Your task to perform on an android device: toggle sleep mode Image 0: 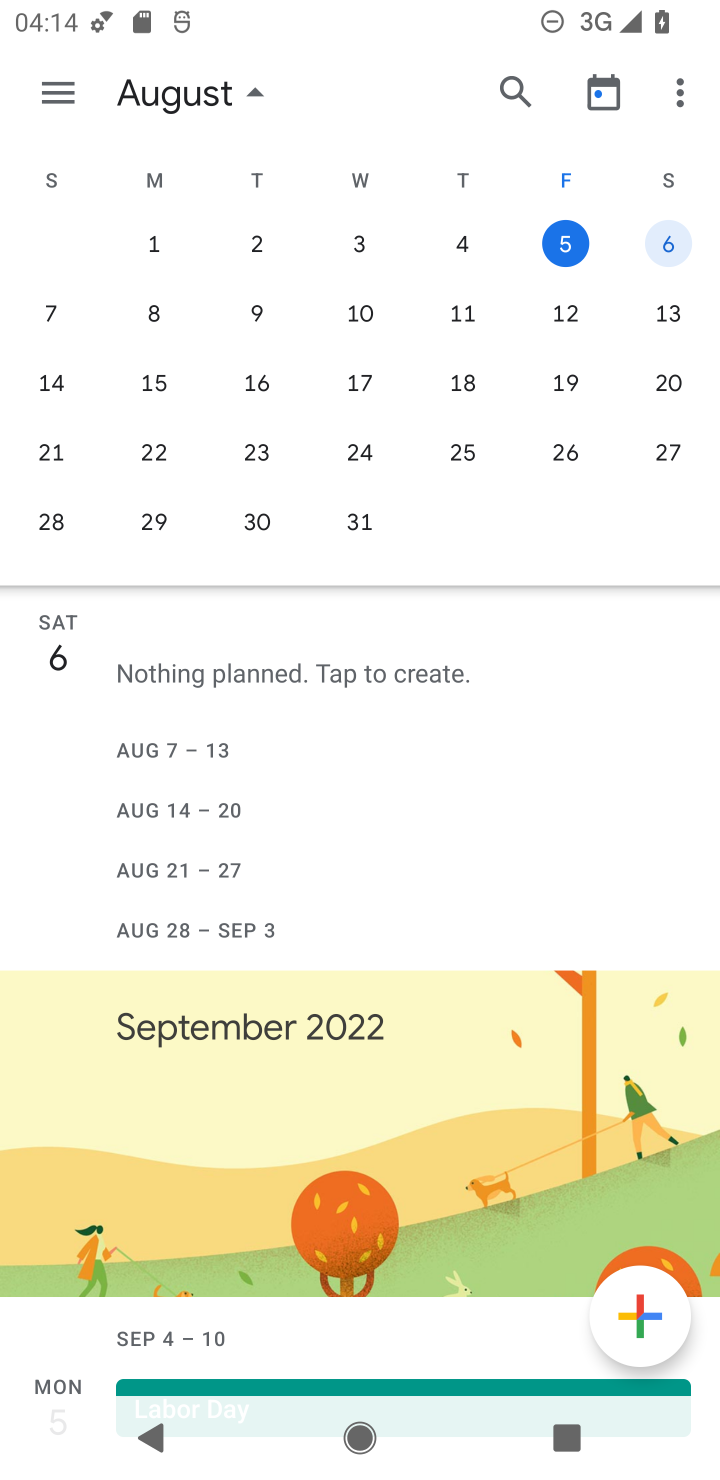
Step 0: press home button
Your task to perform on an android device: toggle sleep mode Image 1: 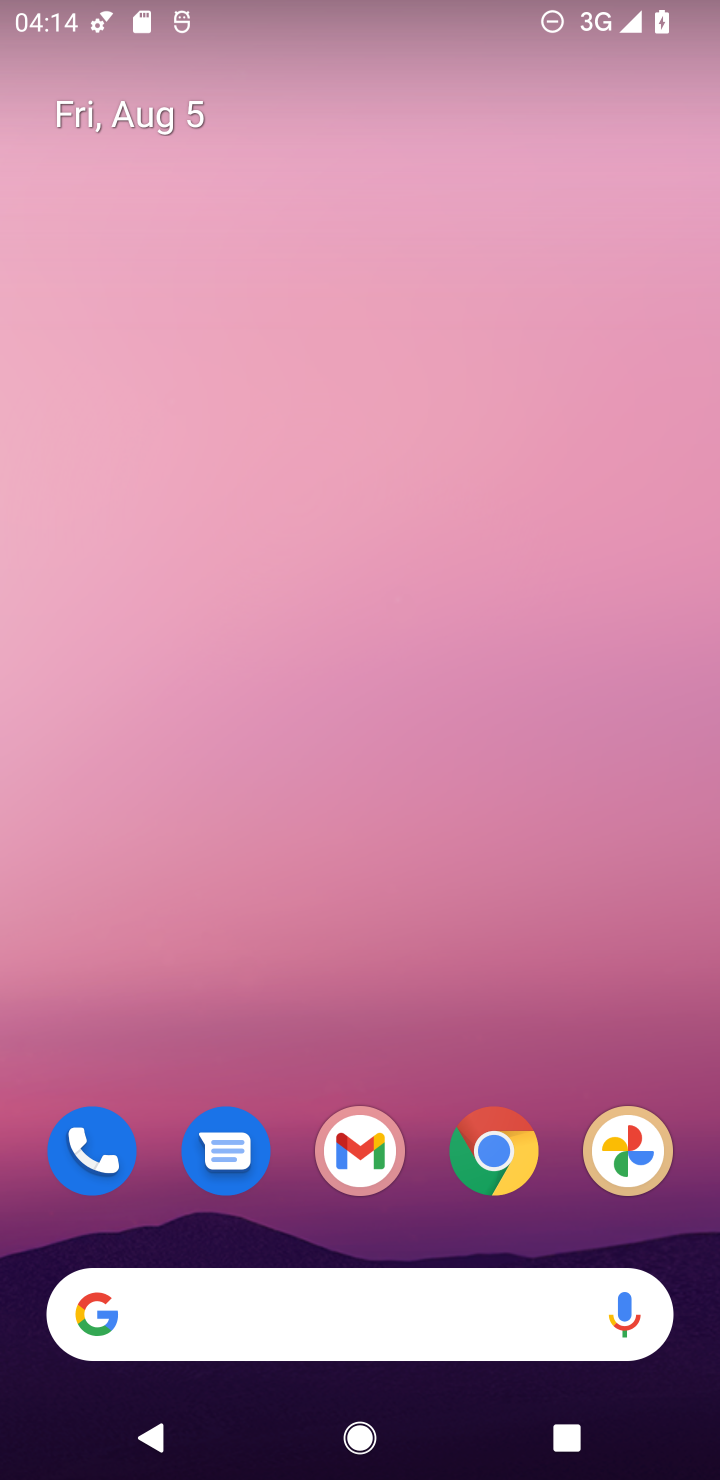
Step 1: drag from (281, 1213) to (369, 51)
Your task to perform on an android device: toggle sleep mode Image 2: 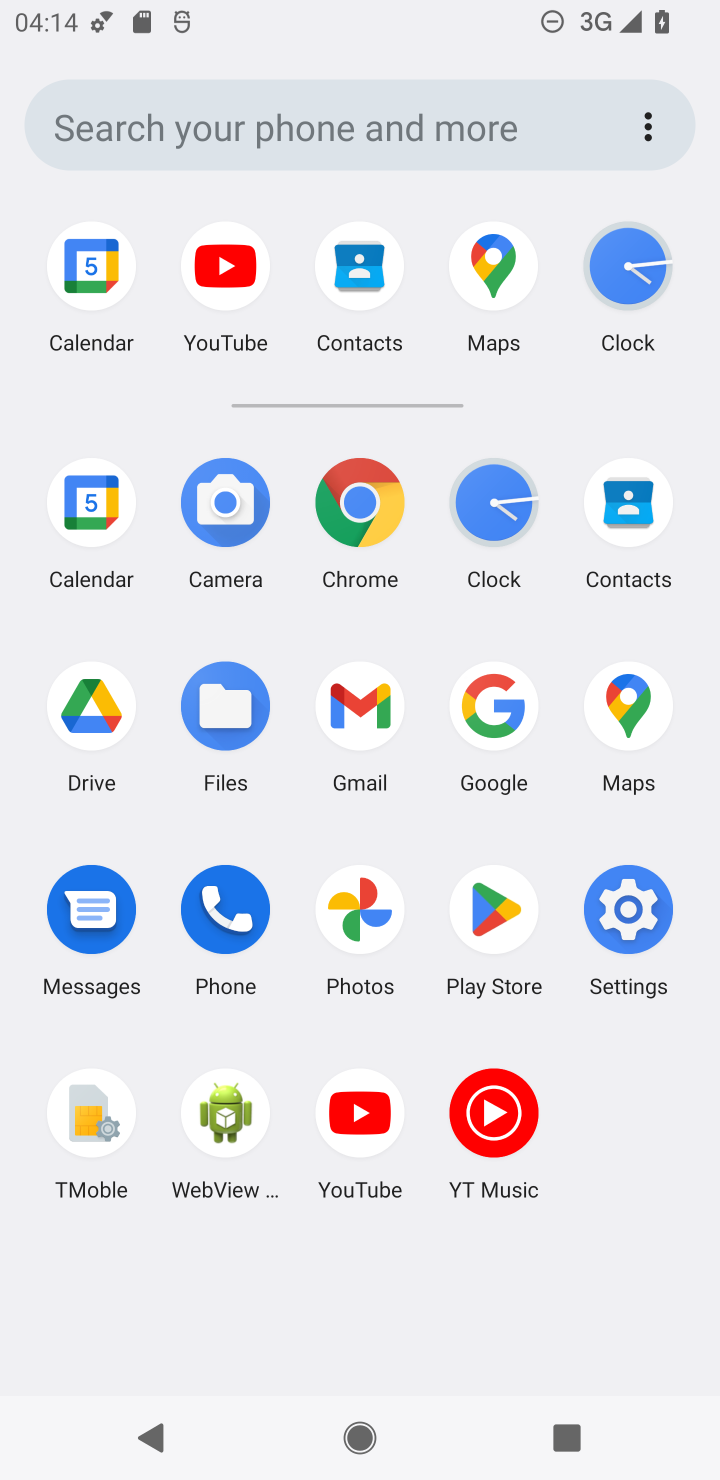
Step 2: click (633, 919)
Your task to perform on an android device: toggle sleep mode Image 3: 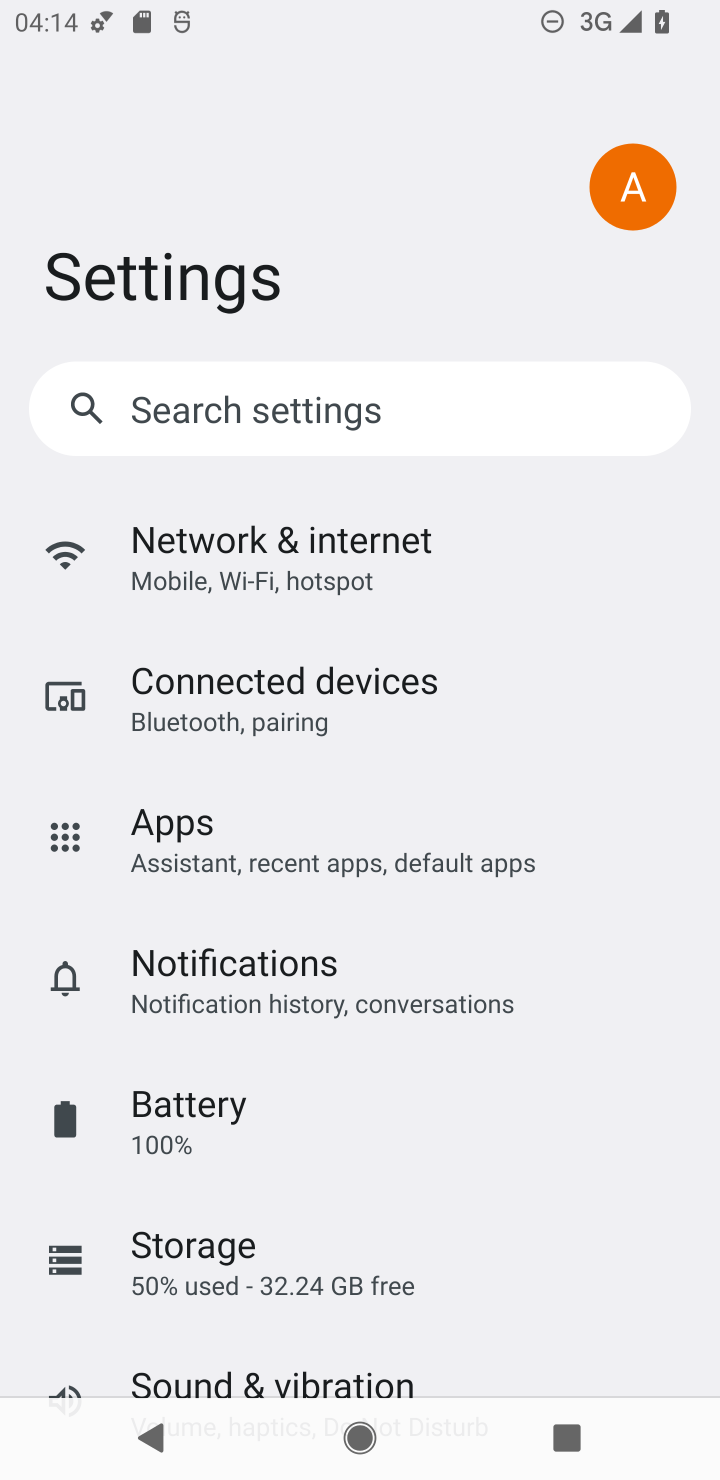
Step 3: drag from (357, 1315) to (265, 770)
Your task to perform on an android device: toggle sleep mode Image 4: 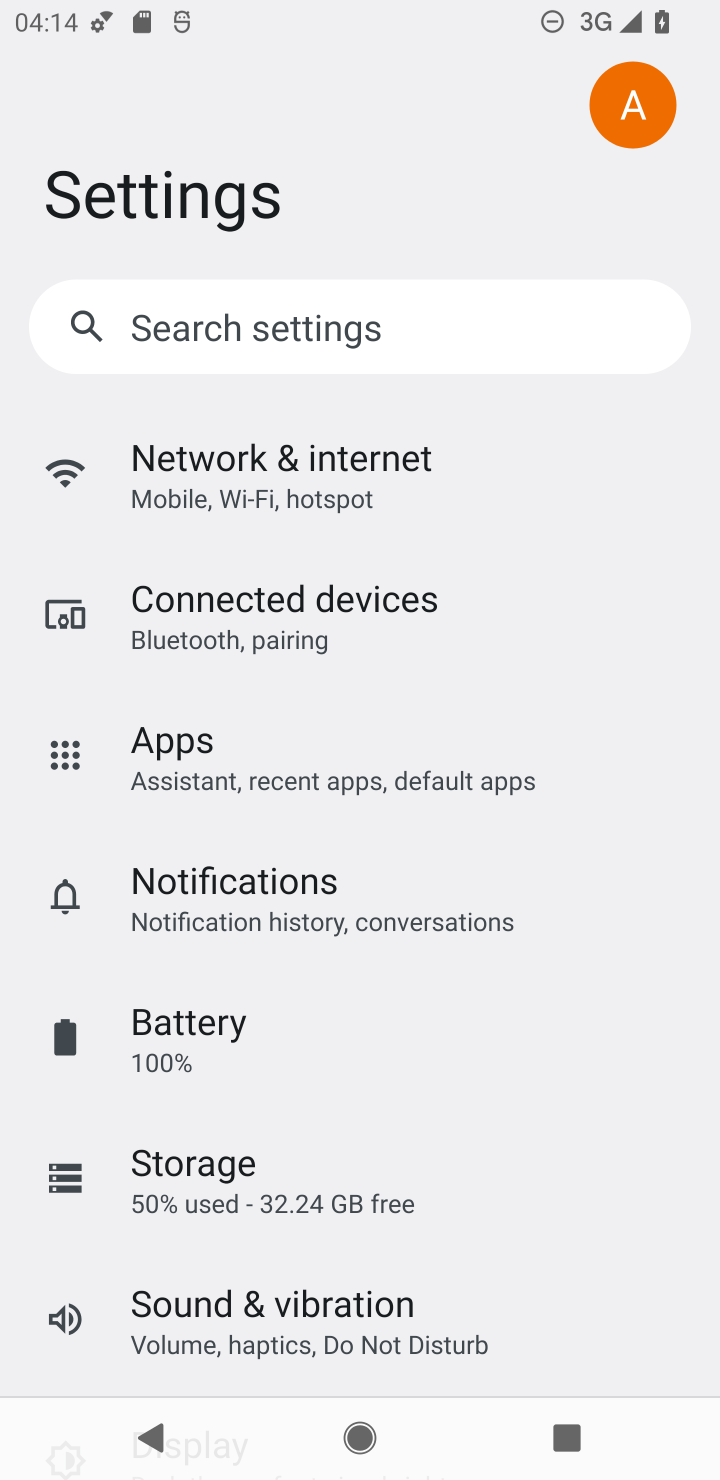
Step 4: drag from (415, 1203) to (420, 540)
Your task to perform on an android device: toggle sleep mode Image 5: 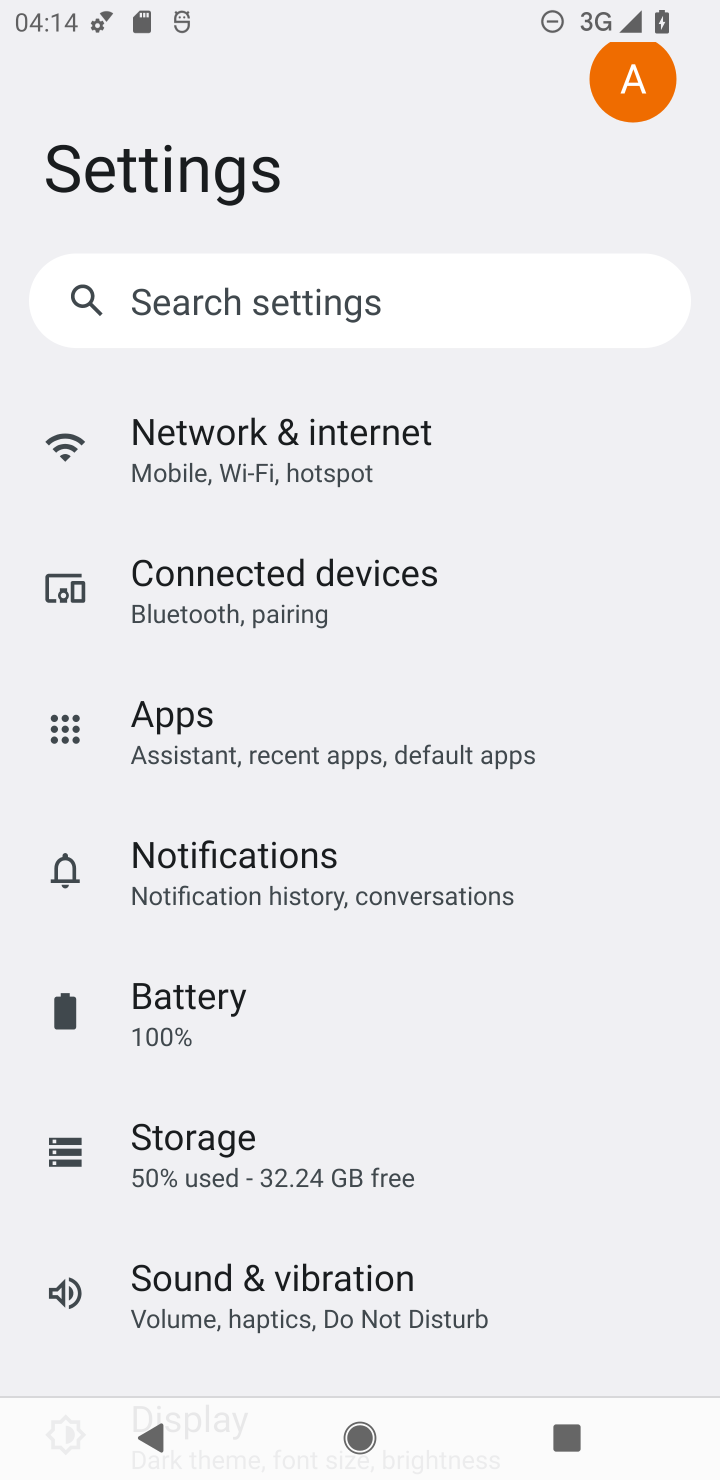
Step 5: drag from (336, 1239) to (252, 610)
Your task to perform on an android device: toggle sleep mode Image 6: 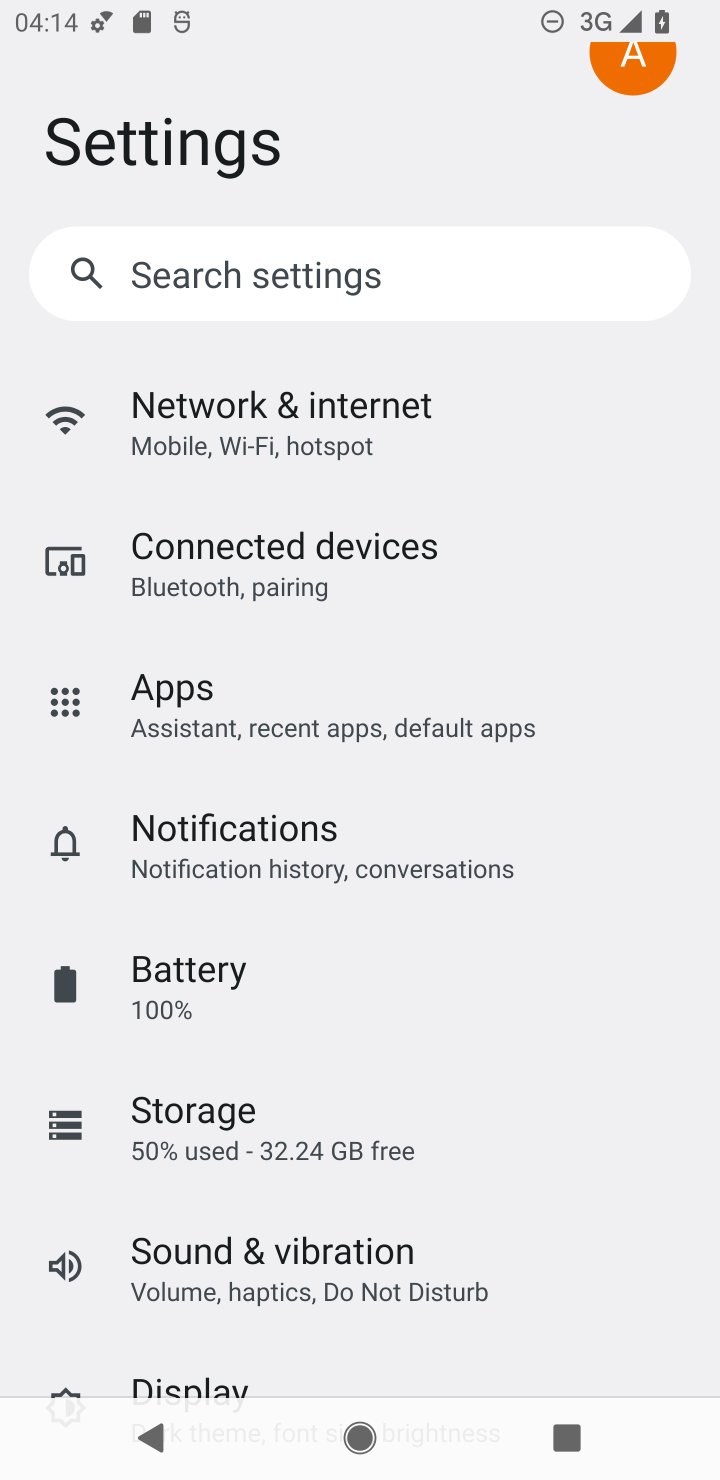
Step 6: drag from (309, 1377) to (290, 1004)
Your task to perform on an android device: toggle sleep mode Image 7: 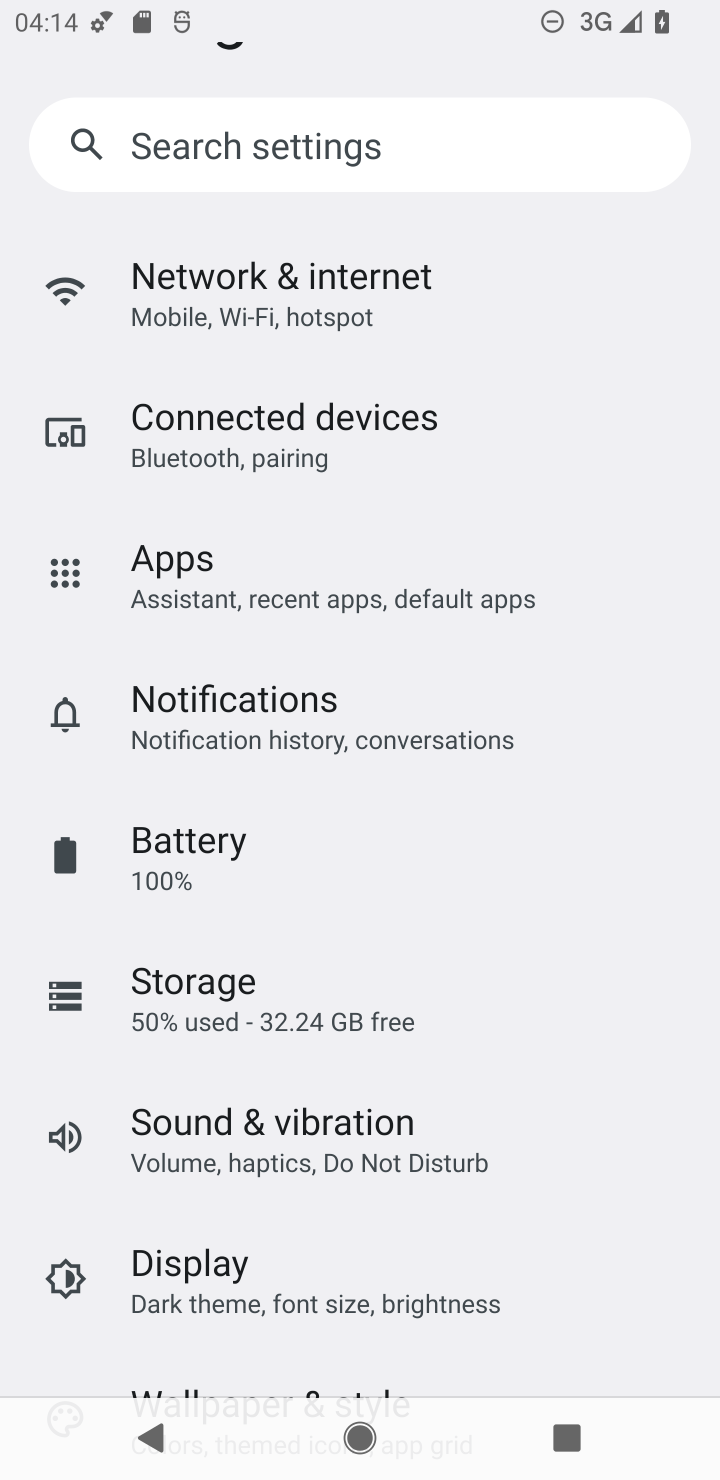
Step 7: click (334, 1311)
Your task to perform on an android device: toggle sleep mode Image 8: 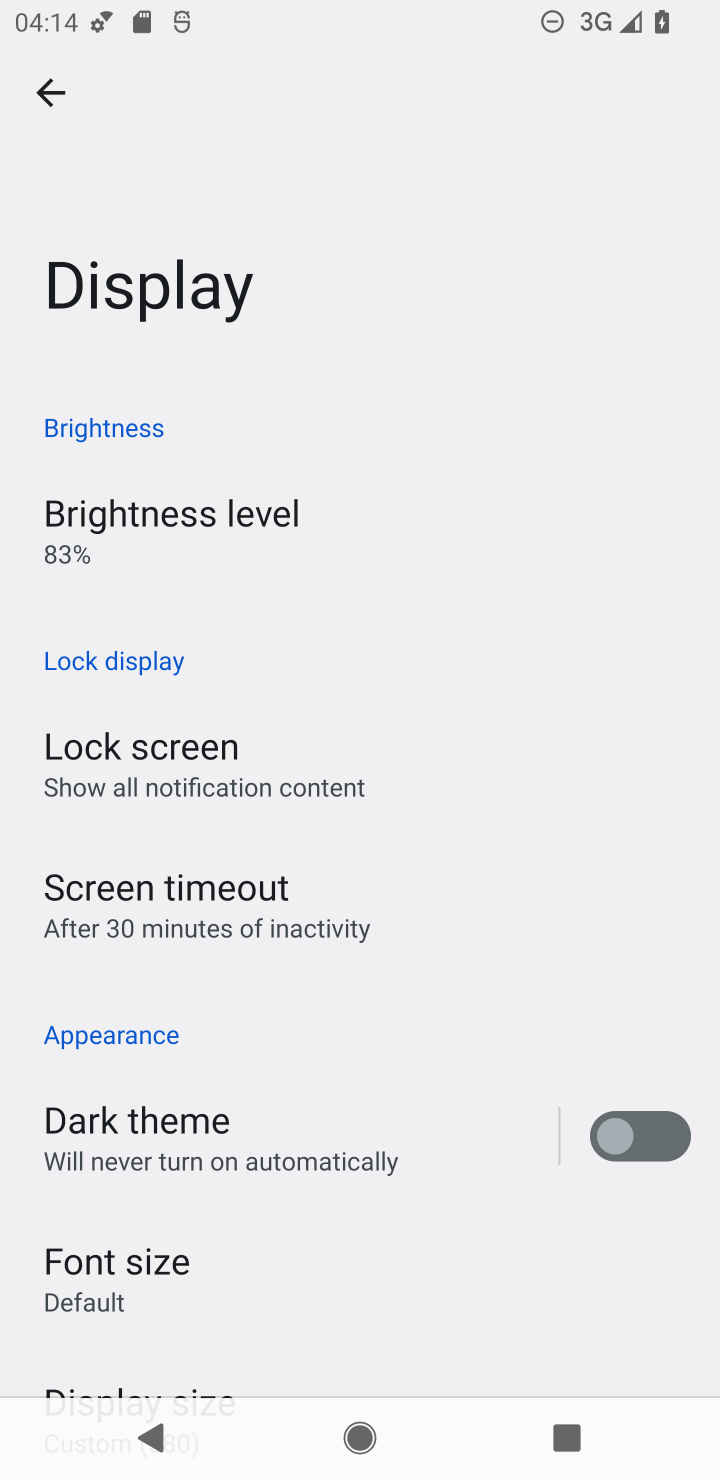
Step 8: task complete